Your task to perform on an android device: Open calendar and show me the fourth week of next month Image 0: 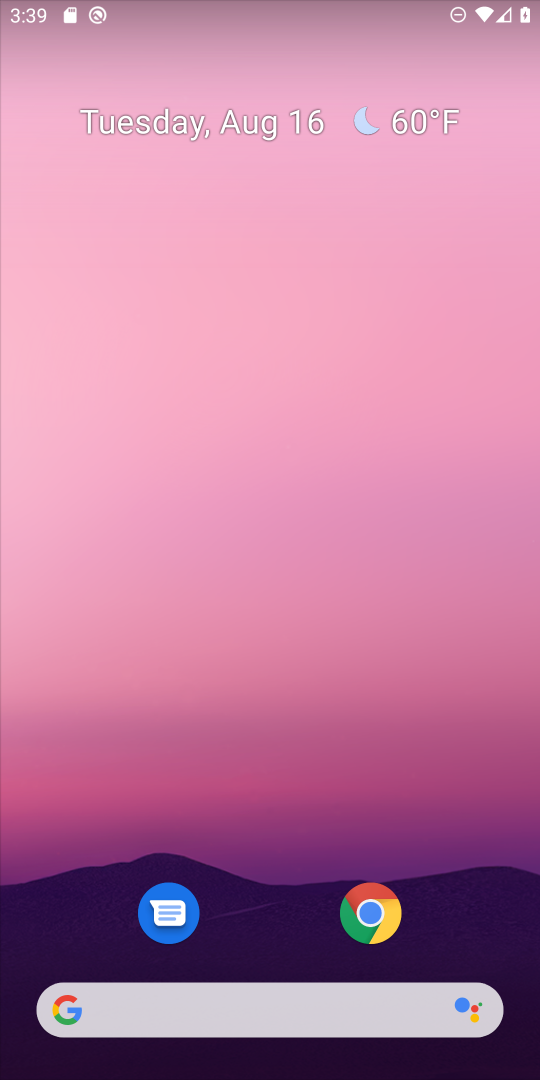
Step 0: drag from (463, 820) to (440, 177)
Your task to perform on an android device: Open calendar and show me the fourth week of next month Image 1: 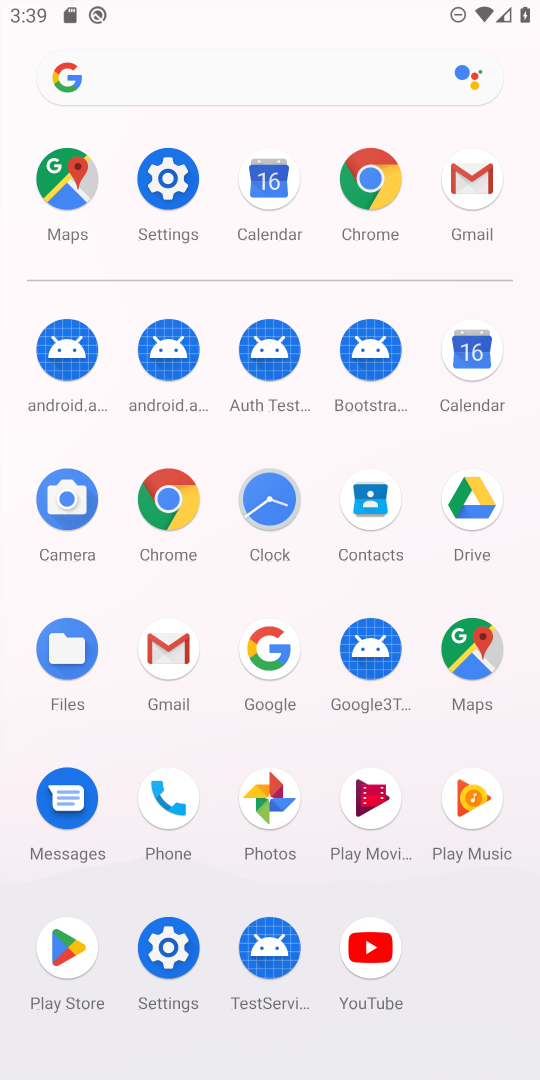
Step 1: click (472, 353)
Your task to perform on an android device: Open calendar and show me the fourth week of next month Image 2: 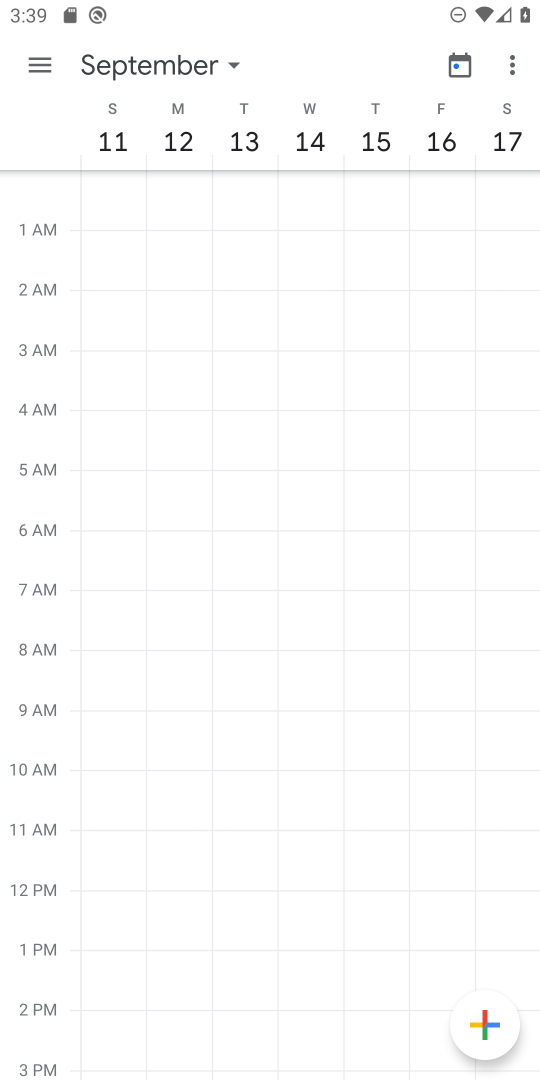
Step 2: click (238, 69)
Your task to perform on an android device: Open calendar and show me the fourth week of next month Image 3: 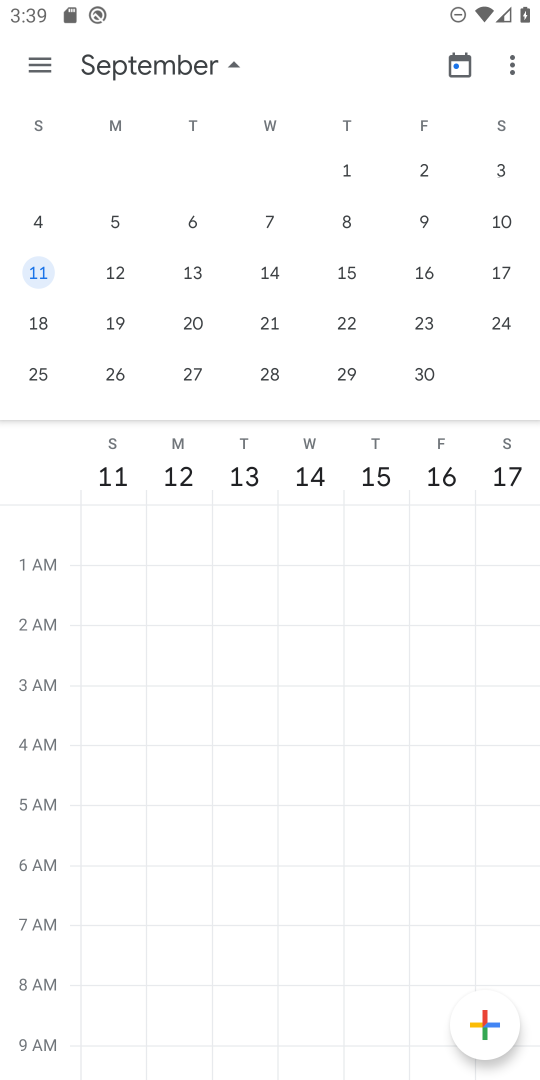
Step 3: click (33, 373)
Your task to perform on an android device: Open calendar and show me the fourth week of next month Image 4: 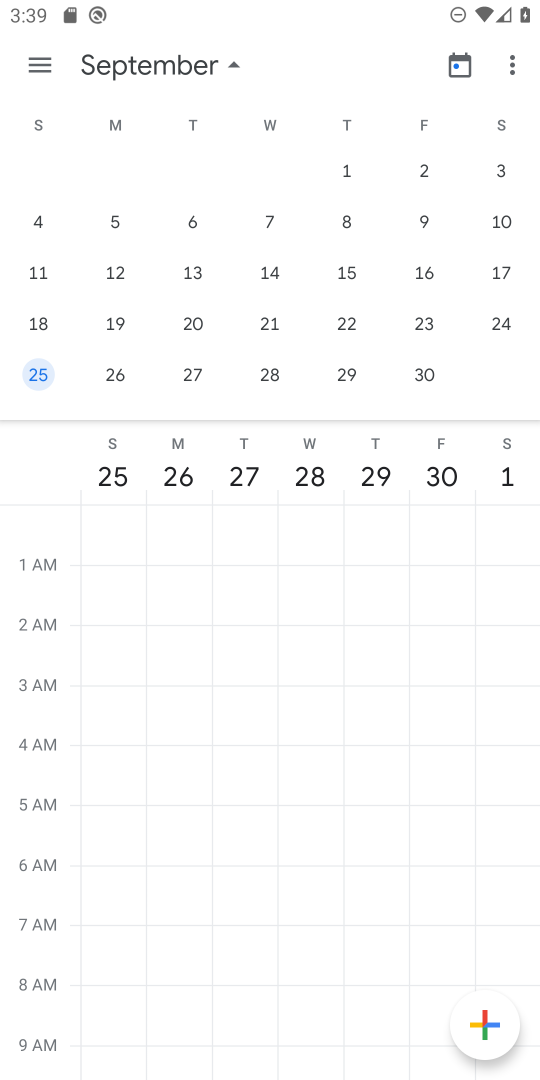
Step 4: task complete